Your task to perform on an android device: open chrome privacy settings Image 0: 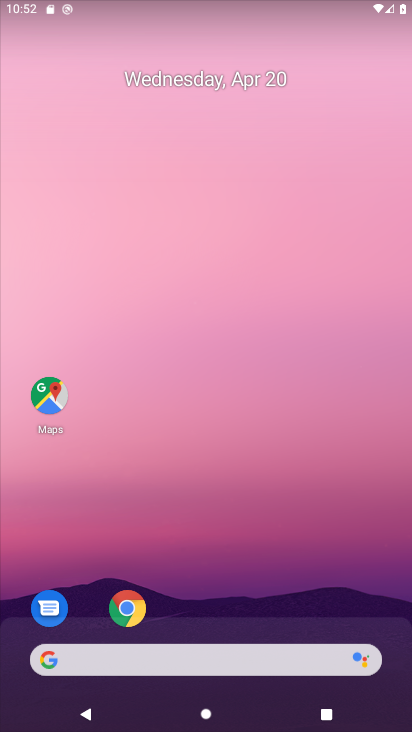
Step 0: click (126, 608)
Your task to perform on an android device: open chrome privacy settings Image 1: 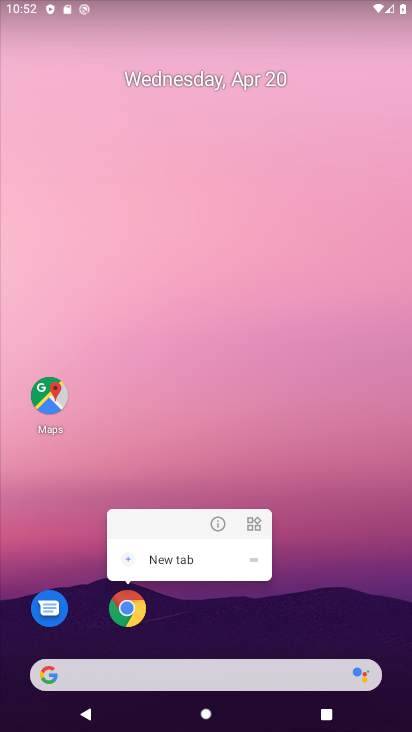
Step 1: click (244, 364)
Your task to perform on an android device: open chrome privacy settings Image 2: 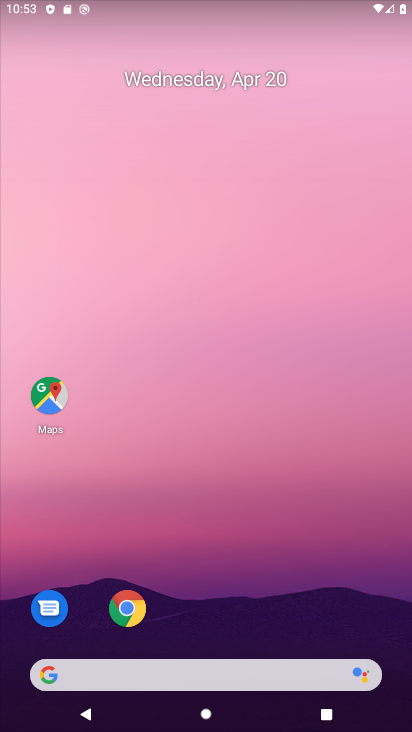
Step 2: click (126, 610)
Your task to perform on an android device: open chrome privacy settings Image 3: 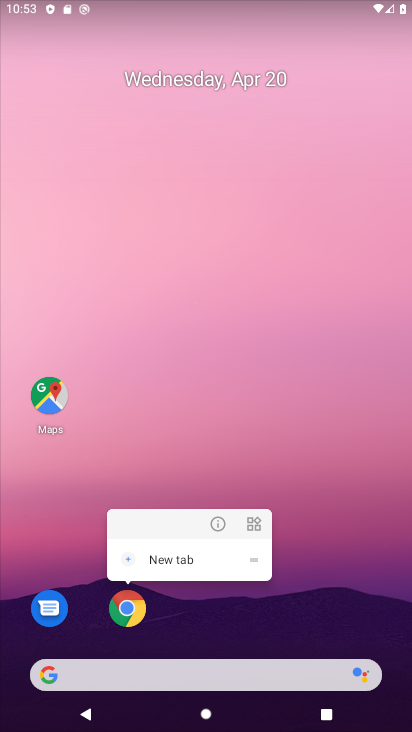
Step 3: click (126, 610)
Your task to perform on an android device: open chrome privacy settings Image 4: 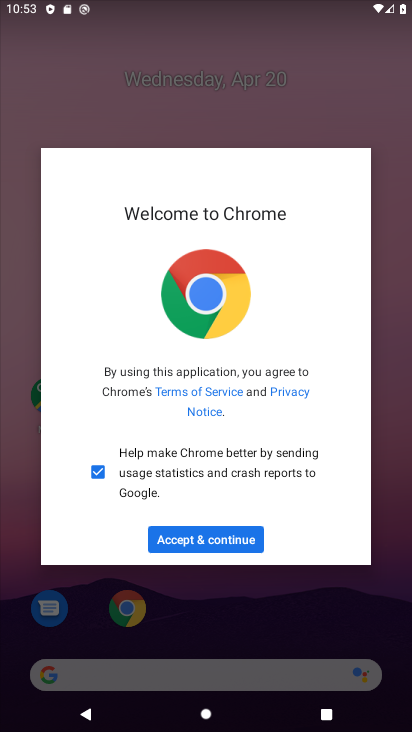
Step 4: click (202, 542)
Your task to perform on an android device: open chrome privacy settings Image 5: 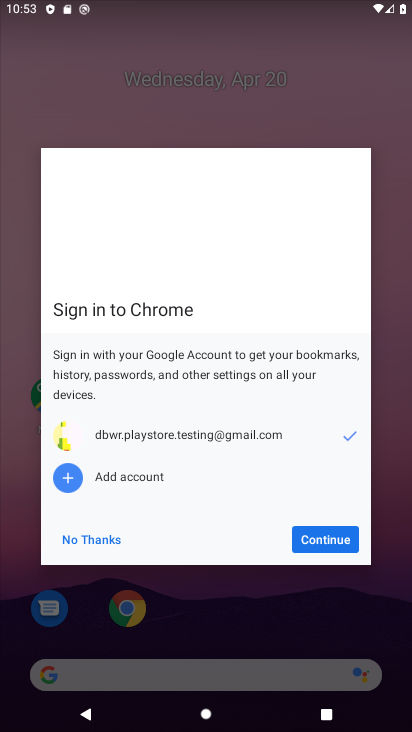
Step 5: click (325, 533)
Your task to perform on an android device: open chrome privacy settings Image 6: 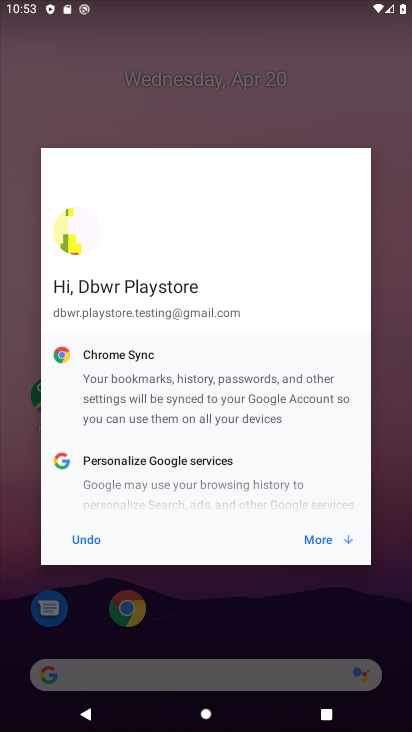
Step 6: click (325, 533)
Your task to perform on an android device: open chrome privacy settings Image 7: 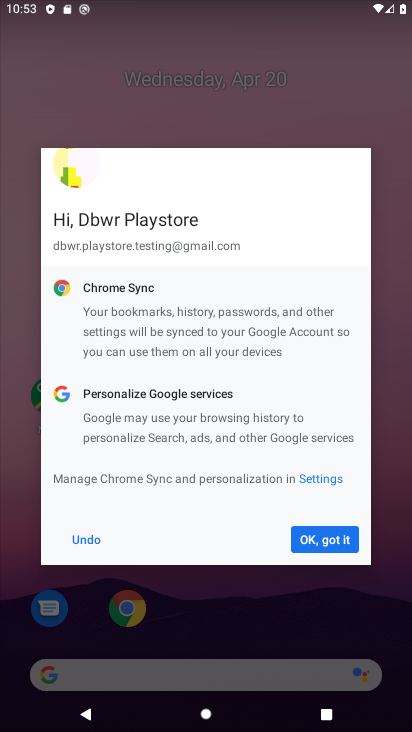
Step 7: click (320, 550)
Your task to perform on an android device: open chrome privacy settings Image 8: 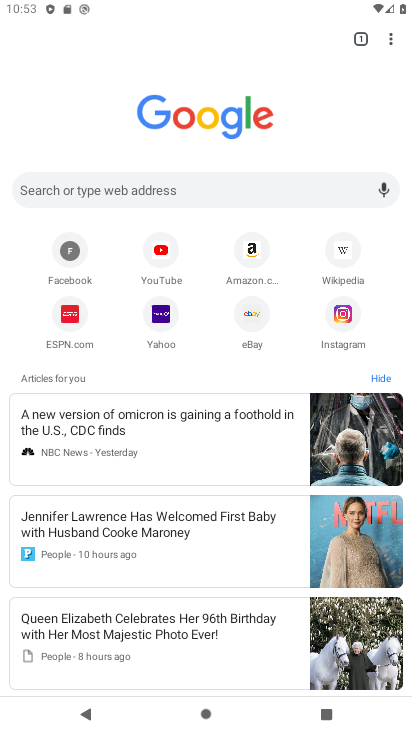
Step 8: click (389, 33)
Your task to perform on an android device: open chrome privacy settings Image 9: 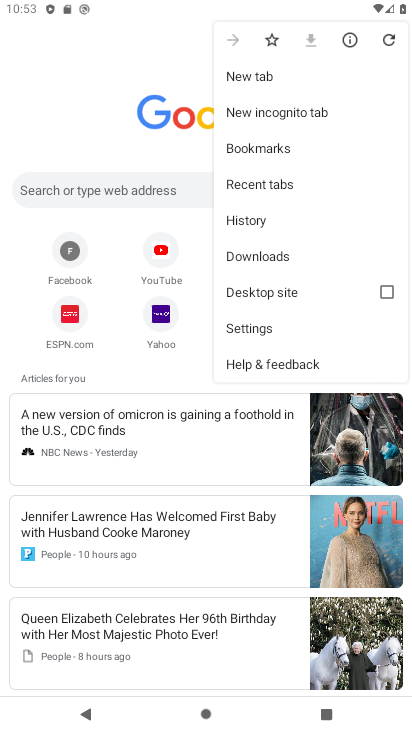
Step 9: click (278, 338)
Your task to perform on an android device: open chrome privacy settings Image 10: 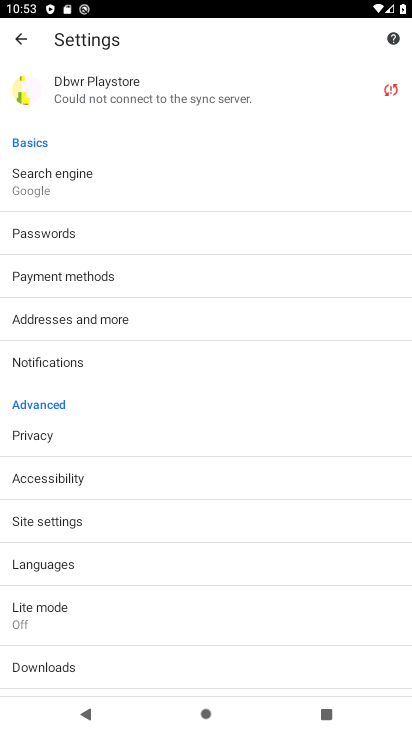
Step 10: click (86, 445)
Your task to perform on an android device: open chrome privacy settings Image 11: 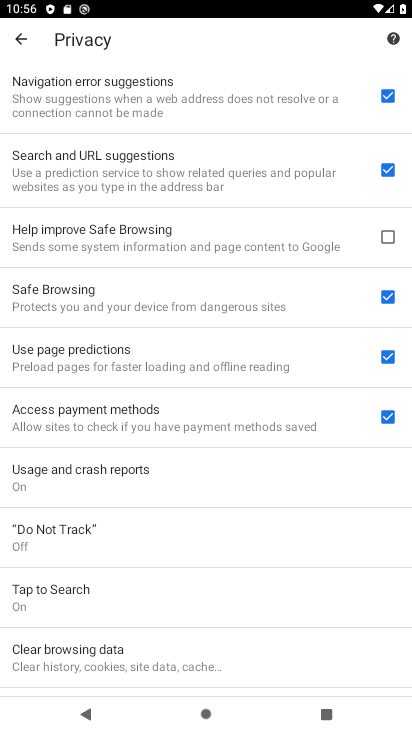
Step 11: task complete